Your task to perform on an android device: open the mobile data screen to see how much data has been used Image 0: 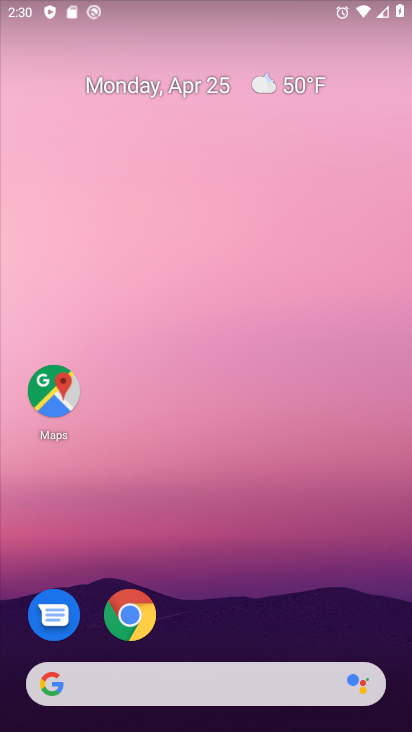
Step 0: drag from (205, 601) to (190, 46)
Your task to perform on an android device: open the mobile data screen to see how much data has been used Image 1: 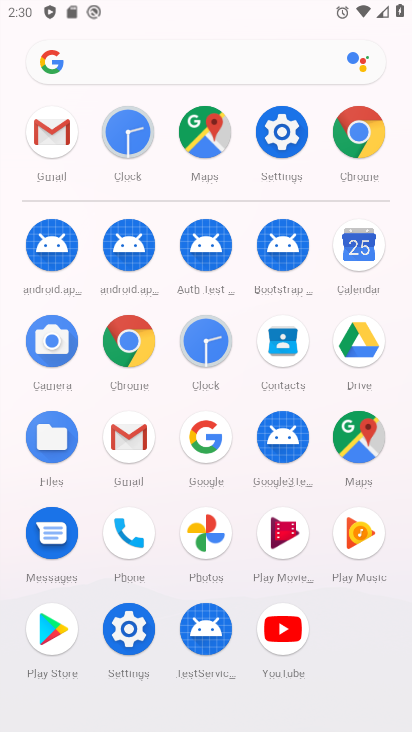
Step 1: click (286, 135)
Your task to perform on an android device: open the mobile data screen to see how much data has been used Image 2: 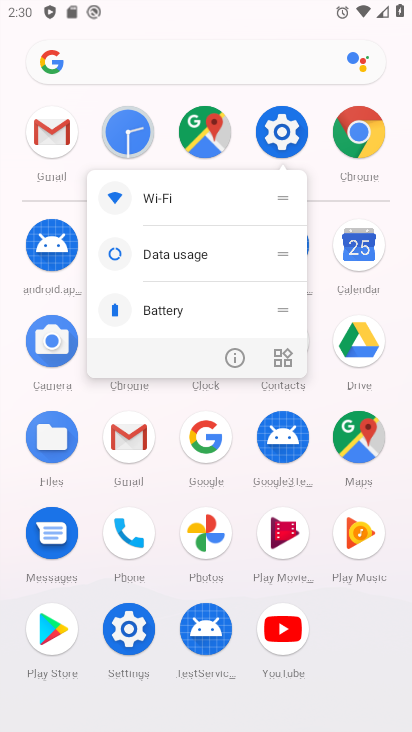
Step 2: click (286, 131)
Your task to perform on an android device: open the mobile data screen to see how much data has been used Image 3: 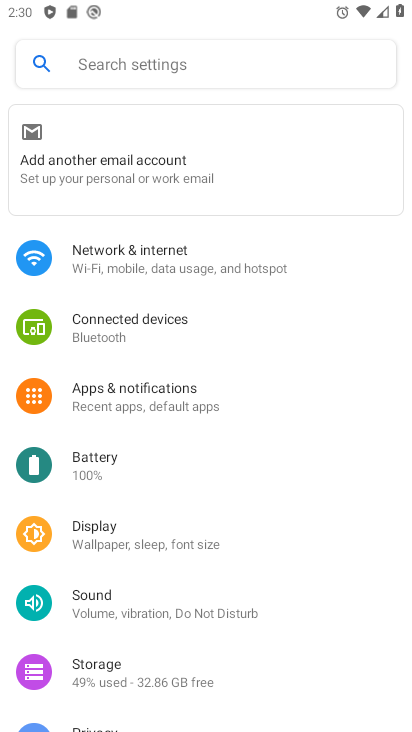
Step 3: click (160, 264)
Your task to perform on an android device: open the mobile data screen to see how much data has been used Image 4: 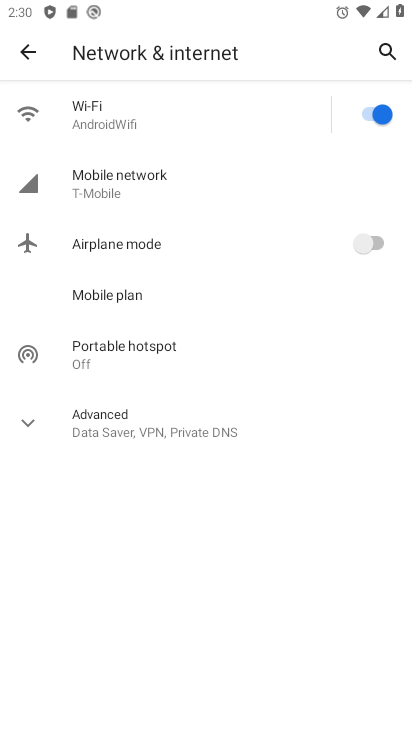
Step 4: click (150, 170)
Your task to perform on an android device: open the mobile data screen to see how much data has been used Image 5: 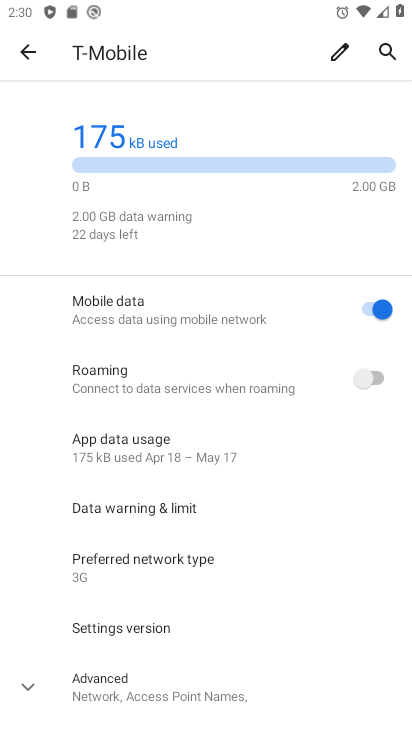
Step 5: task complete